Your task to perform on an android device: Go to sound settings Image 0: 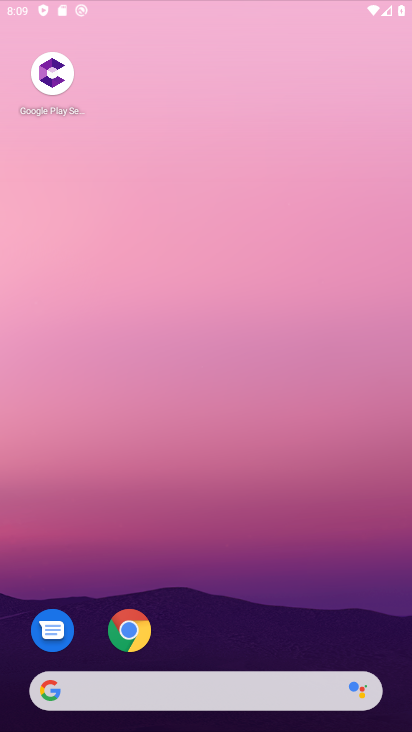
Step 0: click (309, 383)
Your task to perform on an android device: Go to sound settings Image 1: 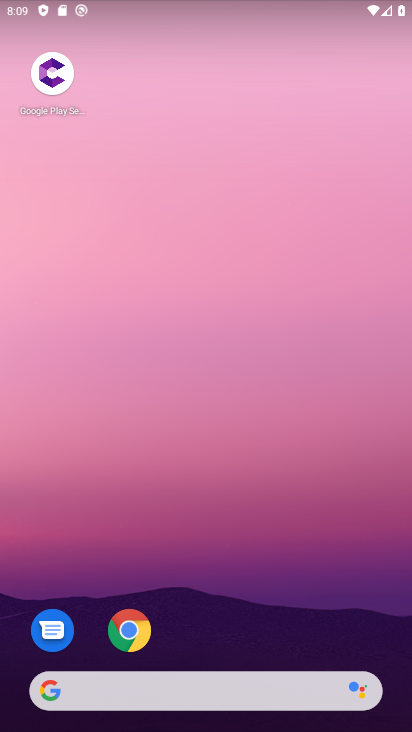
Step 1: drag from (232, 550) to (341, 59)
Your task to perform on an android device: Go to sound settings Image 2: 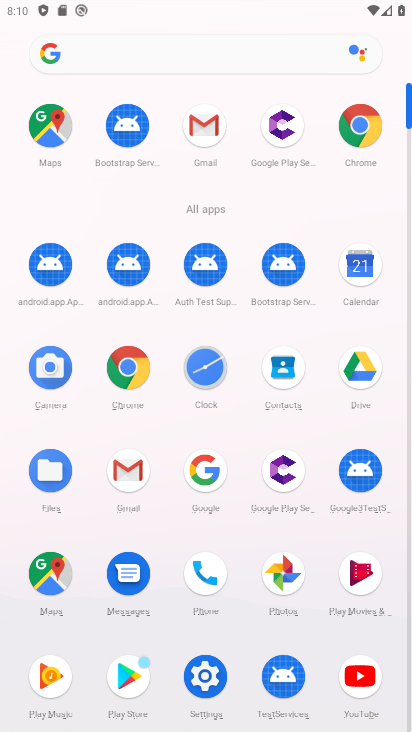
Step 2: click (199, 696)
Your task to perform on an android device: Go to sound settings Image 3: 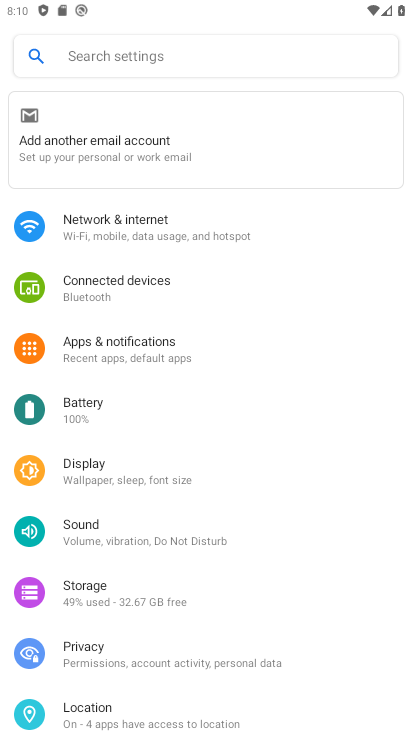
Step 3: click (113, 535)
Your task to perform on an android device: Go to sound settings Image 4: 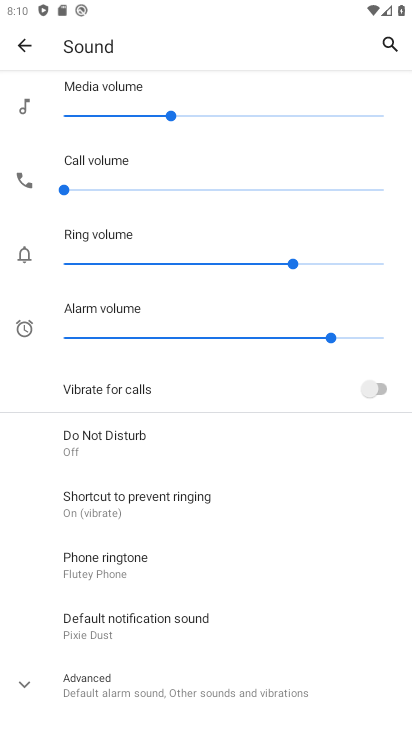
Step 4: task complete